Your task to perform on an android device: Open the map Image 0: 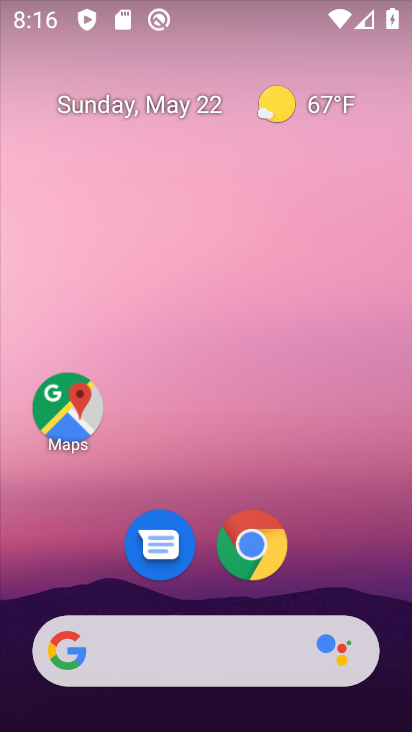
Step 0: click (91, 396)
Your task to perform on an android device: Open the map Image 1: 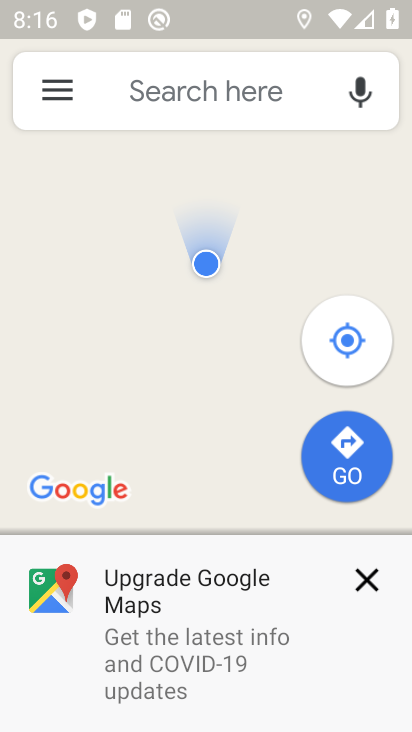
Step 1: task complete